Your task to perform on an android device: turn on location history Image 0: 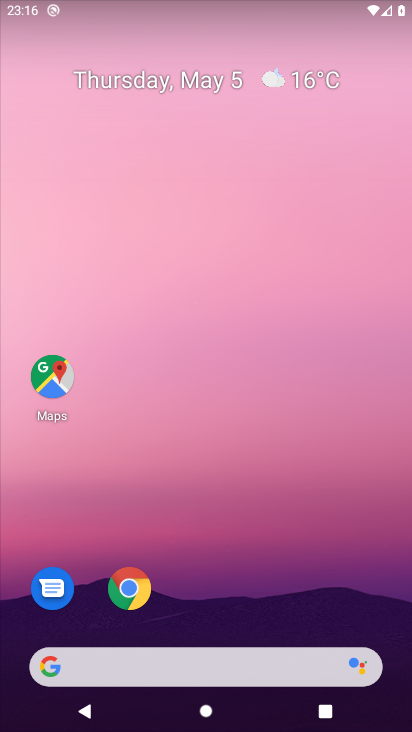
Step 0: drag from (252, 589) to (243, 193)
Your task to perform on an android device: turn on location history Image 1: 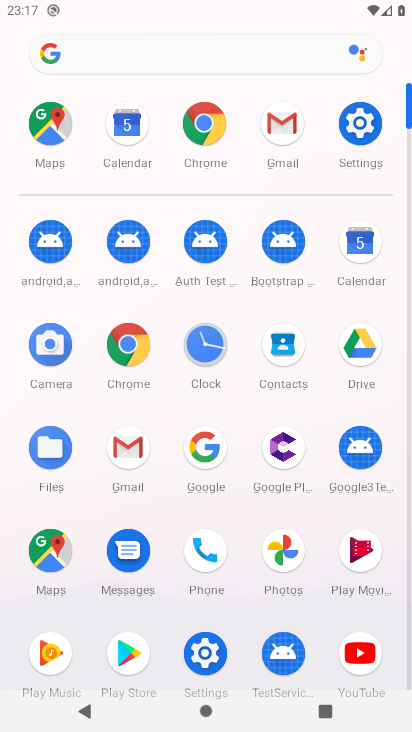
Step 1: click (49, 137)
Your task to perform on an android device: turn on location history Image 2: 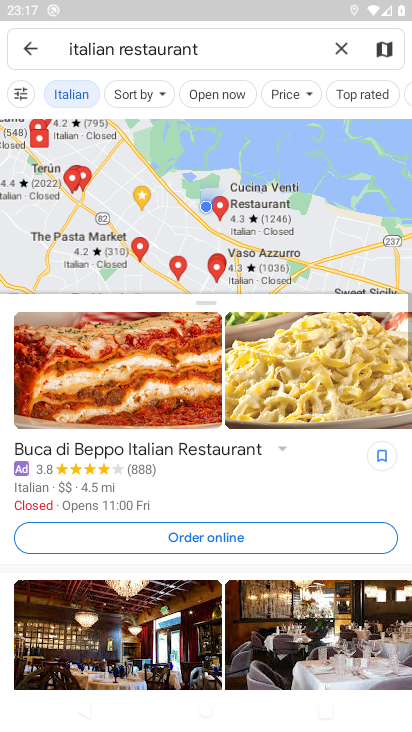
Step 2: click (31, 49)
Your task to perform on an android device: turn on location history Image 3: 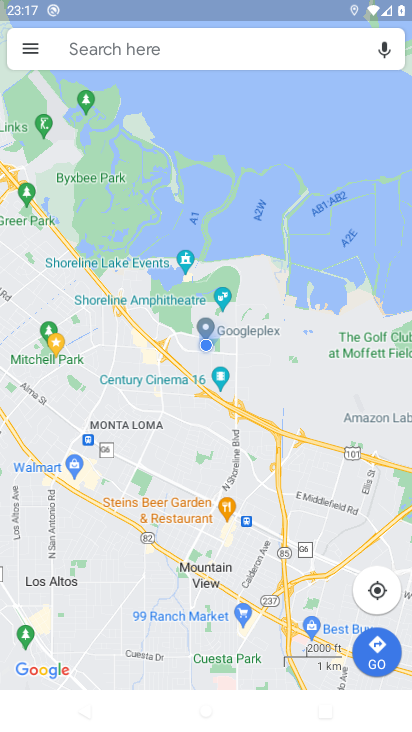
Step 3: click (31, 49)
Your task to perform on an android device: turn on location history Image 4: 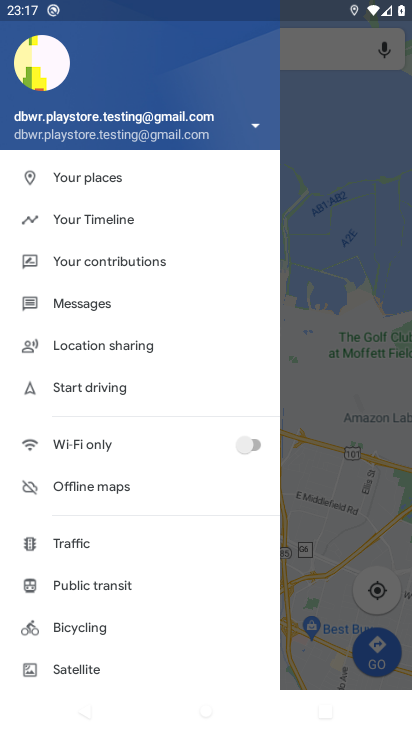
Step 4: click (119, 222)
Your task to perform on an android device: turn on location history Image 5: 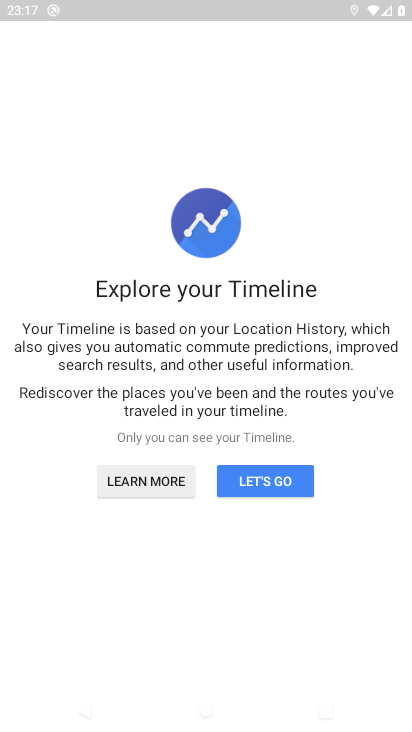
Step 5: click (277, 477)
Your task to perform on an android device: turn on location history Image 6: 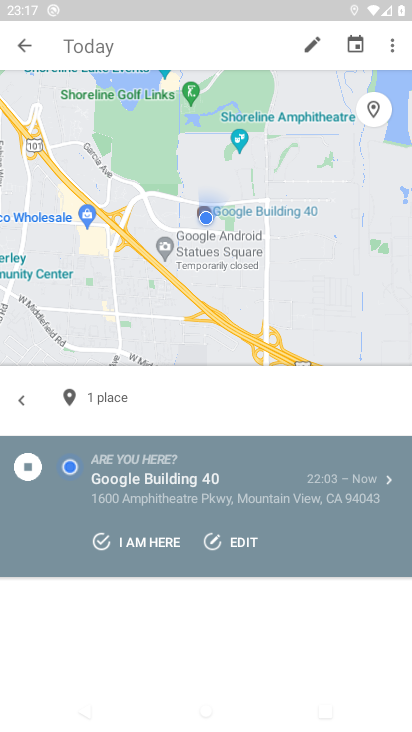
Step 6: click (390, 45)
Your task to perform on an android device: turn on location history Image 7: 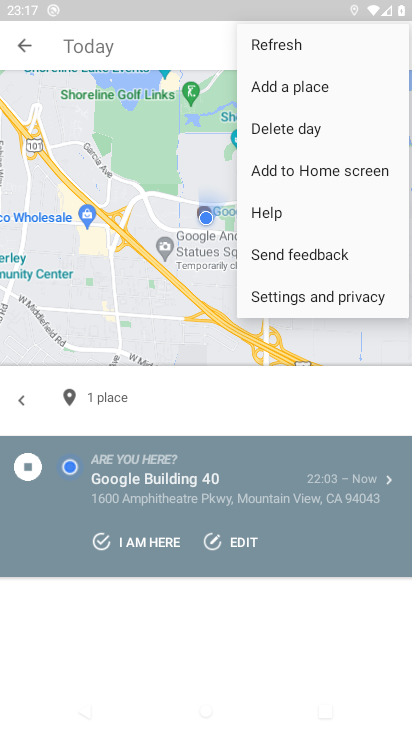
Step 7: click (315, 301)
Your task to perform on an android device: turn on location history Image 8: 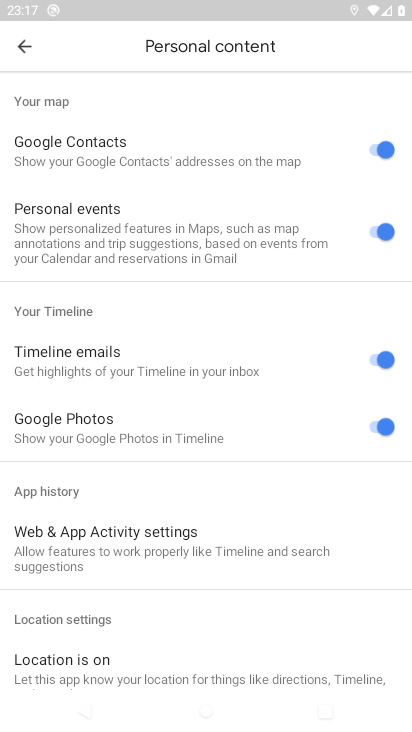
Step 8: drag from (234, 627) to (294, 127)
Your task to perform on an android device: turn on location history Image 9: 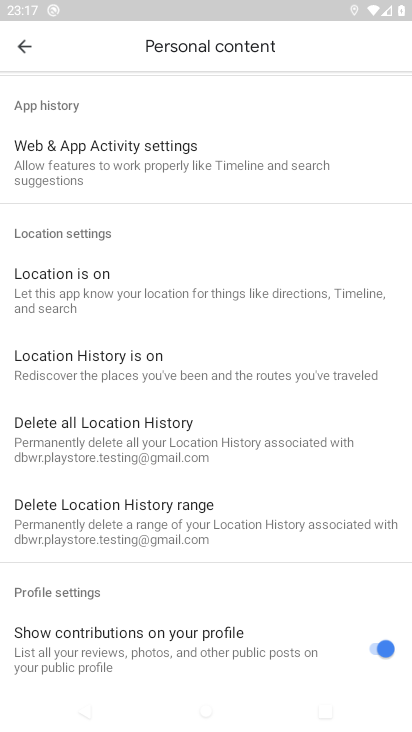
Step 9: click (240, 364)
Your task to perform on an android device: turn on location history Image 10: 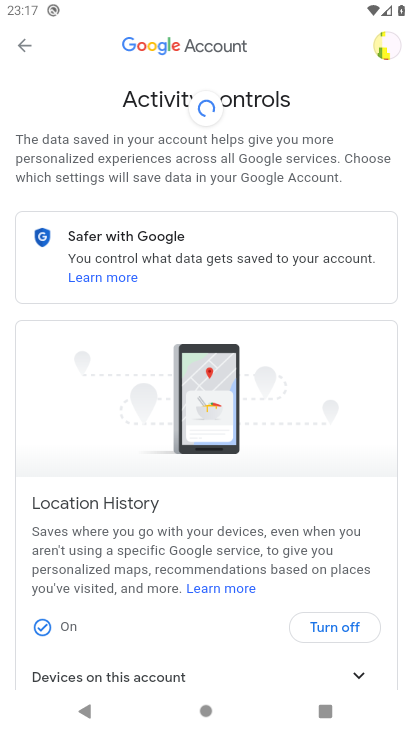
Step 10: task complete